Your task to perform on an android device: How much does a 3 bedroom apartment rent for in Atlanta? Image 0: 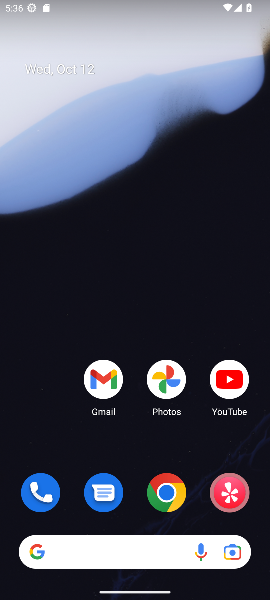
Step 0: click (172, 497)
Your task to perform on an android device: How much does a 3 bedroom apartment rent for in Atlanta? Image 1: 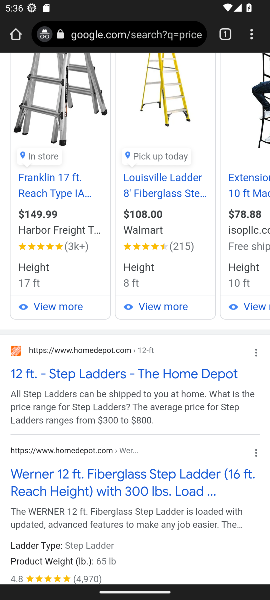
Step 1: click (90, 40)
Your task to perform on an android device: How much does a 3 bedroom apartment rent for in Atlanta? Image 2: 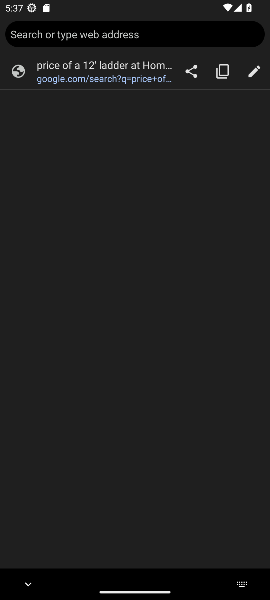
Step 2: type "3 bedroom apartment rent for in Atlanta"
Your task to perform on an android device: How much does a 3 bedroom apartment rent for in Atlanta? Image 3: 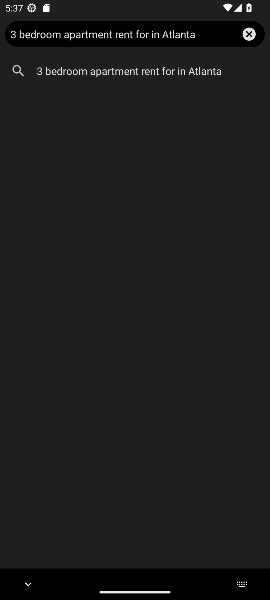
Step 3: click (96, 76)
Your task to perform on an android device: How much does a 3 bedroom apartment rent for in Atlanta? Image 4: 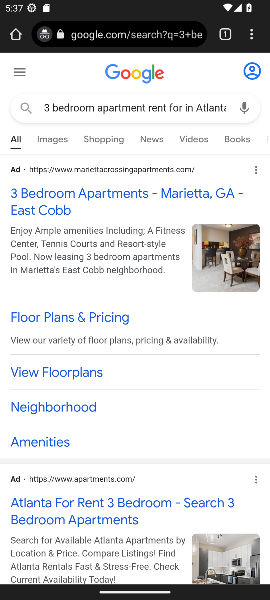
Step 4: drag from (124, 379) to (128, 106)
Your task to perform on an android device: How much does a 3 bedroom apartment rent for in Atlanta? Image 5: 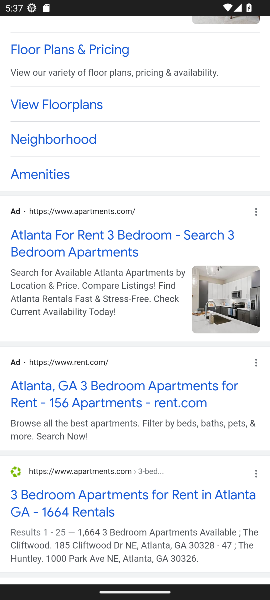
Step 5: drag from (102, 401) to (118, 124)
Your task to perform on an android device: How much does a 3 bedroom apartment rent for in Atlanta? Image 6: 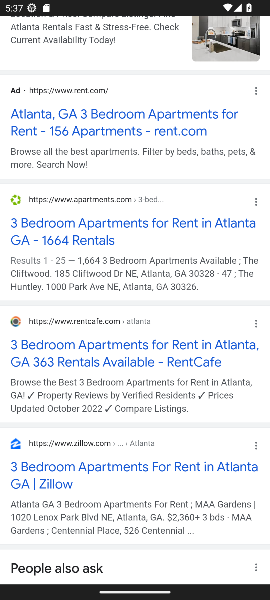
Step 6: drag from (100, 351) to (104, 157)
Your task to perform on an android device: How much does a 3 bedroom apartment rent for in Atlanta? Image 7: 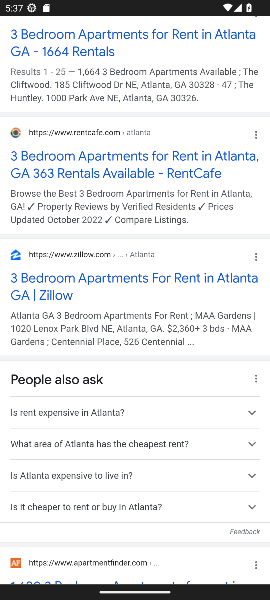
Step 7: click (83, 294)
Your task to perform on an android device: How much does a 3 bedroom apartment rent for in Atlanta? Image 8: 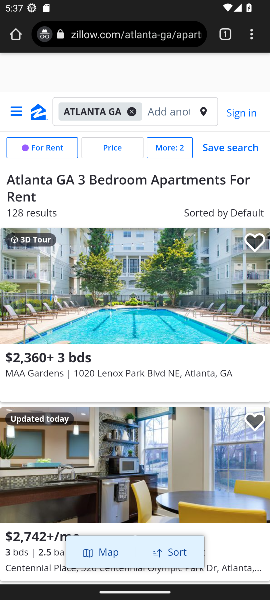
Step 8: task complete